Your task to perform on an android device: Open Google Chrome and open the bookmarks view Image 0: 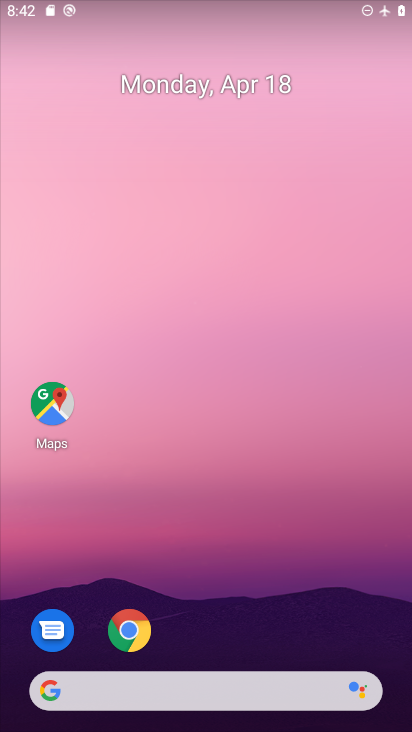
Step 0: click (134, 622)
Your task to perform on an android device: Open Google Chrome and open the bookmarks view Image 1: 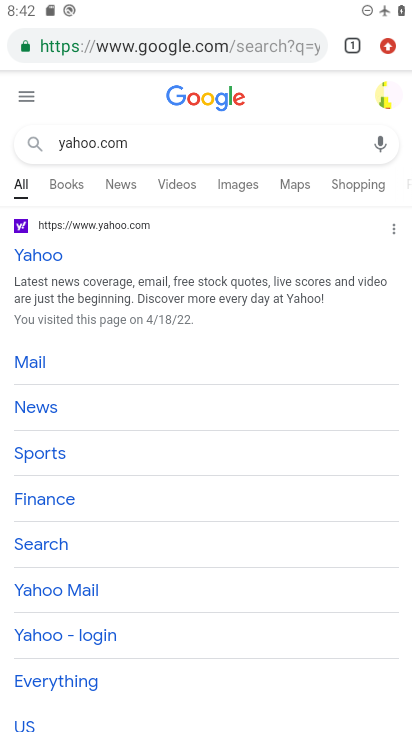
Step 1: click (388, 47)
Your task to perform on an android device: Open Google Chrome and open the bookmarks view Image 2: 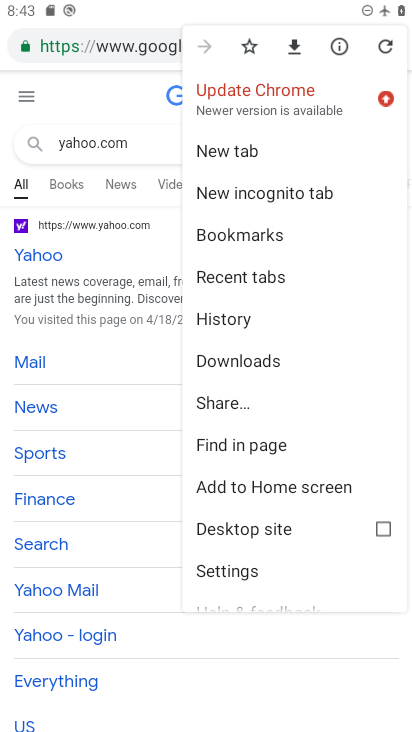
Step 2: click (262, 237)
Your task to perform on an android device: Open Google Chrome and open the bookmarks view Image 3: 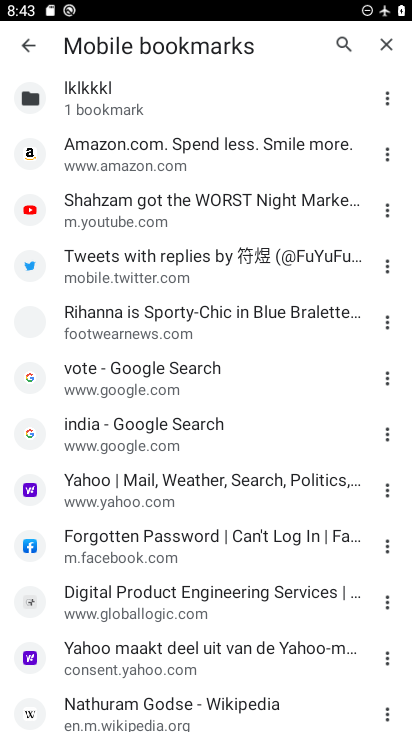
Step 3: task complete